Your task to perform on an android device: Do I have any events today? Image 0: 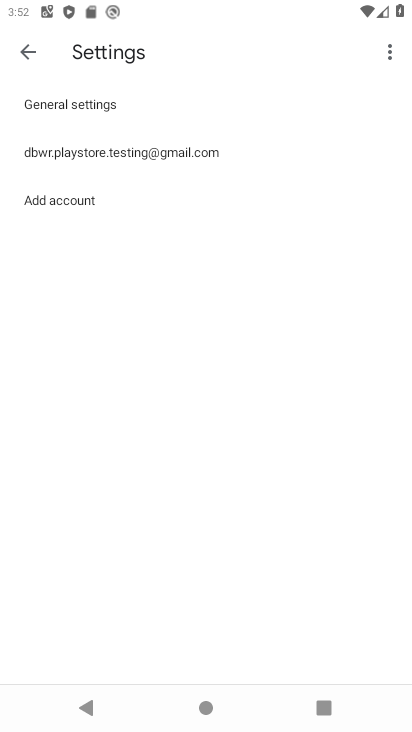
Step 0: press home button
Your task to perform on an android device: Do I have any events today? Image 1: 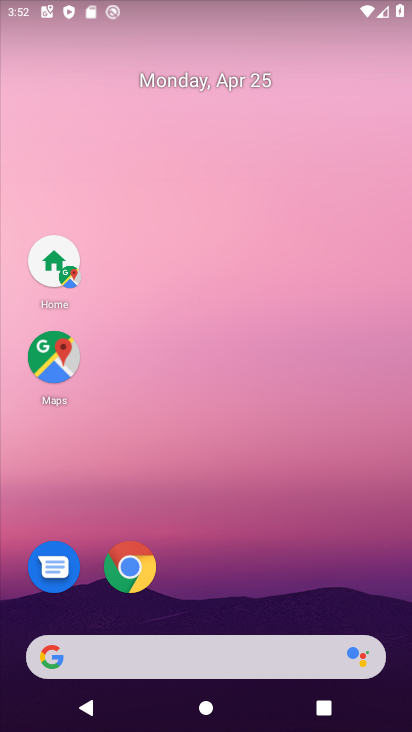
Step 1: drag from (231, 488) to (311, 0)
Your task to perform on an android device: Do I have any events today? Image 2: 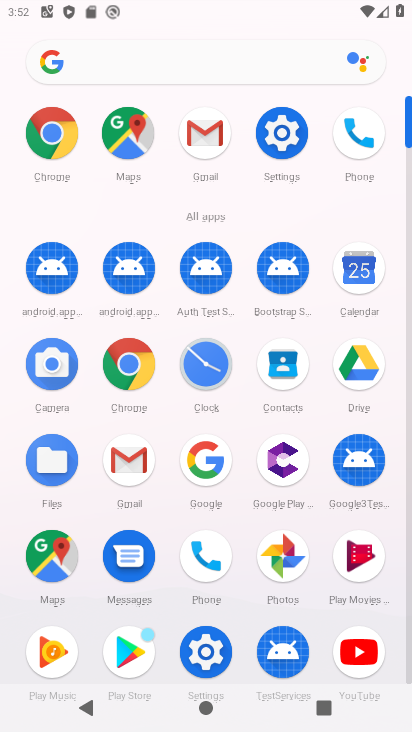
Step 2: click (364, 285)
Your task to perform on an android device: Do I have any events today? Image 3: 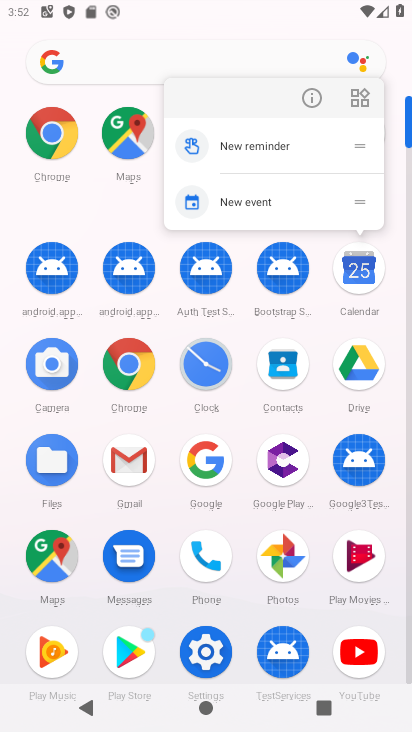
Step 3: click (364, 285)
Your task to perform on an android device: Do I have any events today? Image 4: 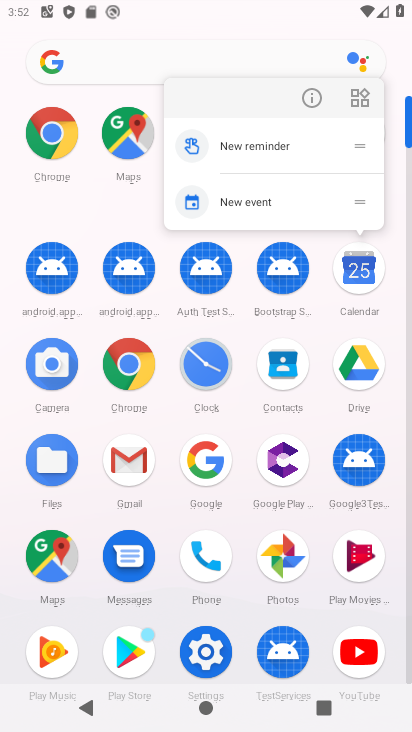
Step 4: click (364, 285)
Your task to perform on an android device: Do I have any events today? Image 5: 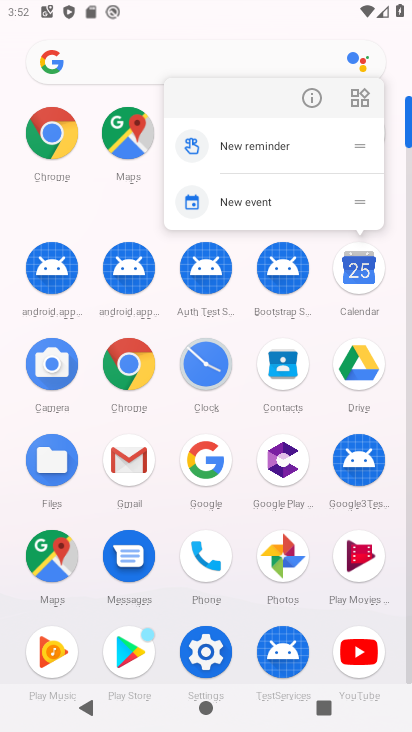
Step 5: click (364, 285)
Your task to perform on an android device: Do I have any events today? Image 6: 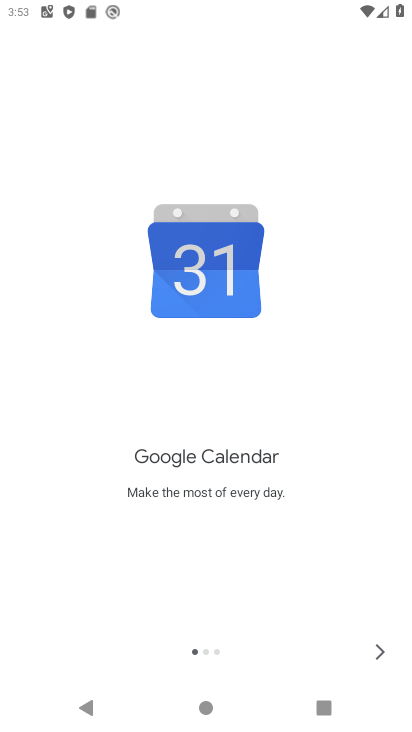
Step 6: click (382, 638)
Your task to perform on an android device: Do I have any events today? Image 7: 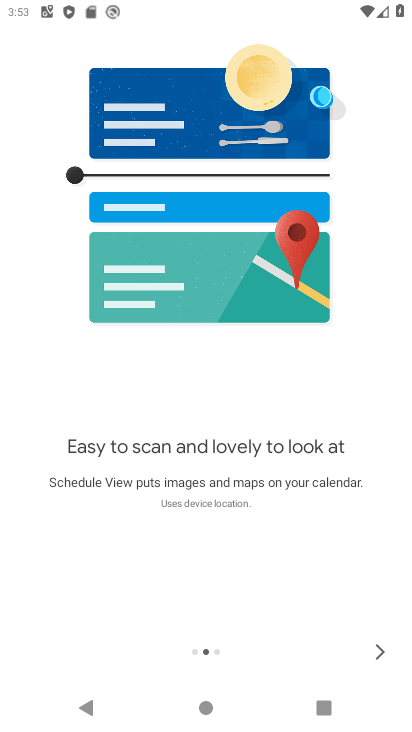
Step 7: click (382, 638)
Your task to perform on an android device: Do I have any events today? Image 8: 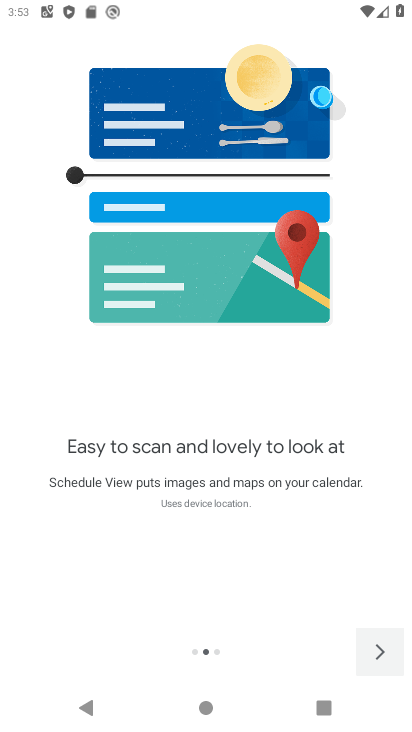
Step 8: click (382, 638)
Your task to perform on an android device: Do I have any events today? Image 9: 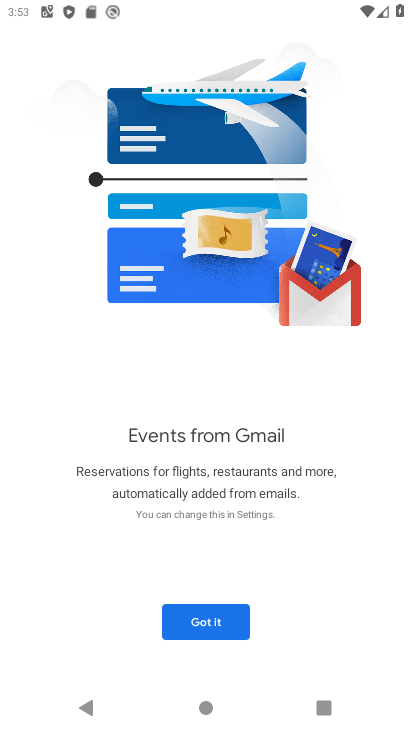
Step 9: click (196, 625)
Your task to perform on an android device: Do I have any events today? Image 10: 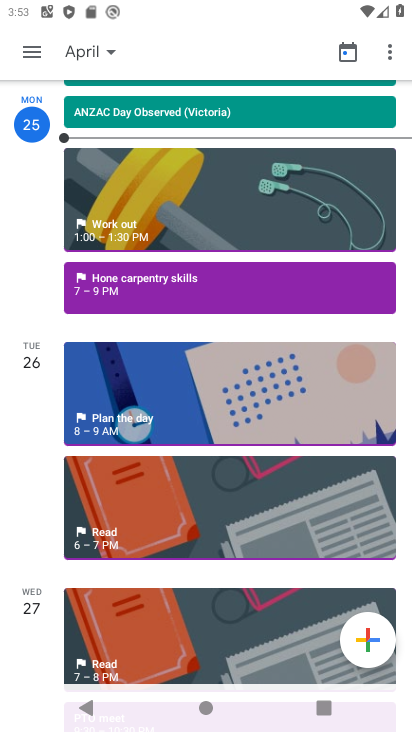
Step 10: click (87, 58)
Your task to perform on an android device: Do I have any events today? Image 11: 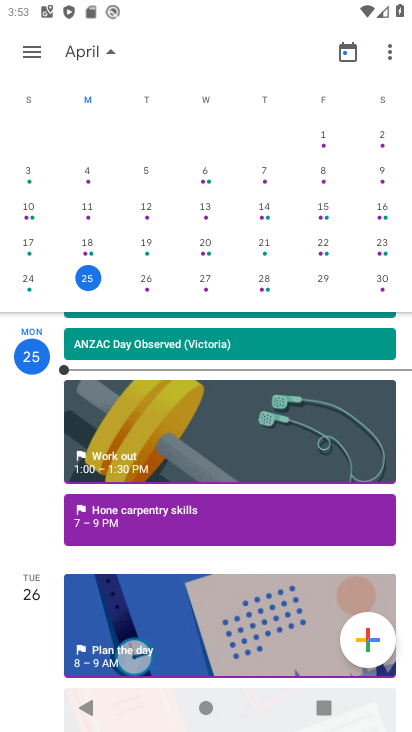
Step 11: task complete